Your task to perform on an android device: Open Yahoo.com Image 0: 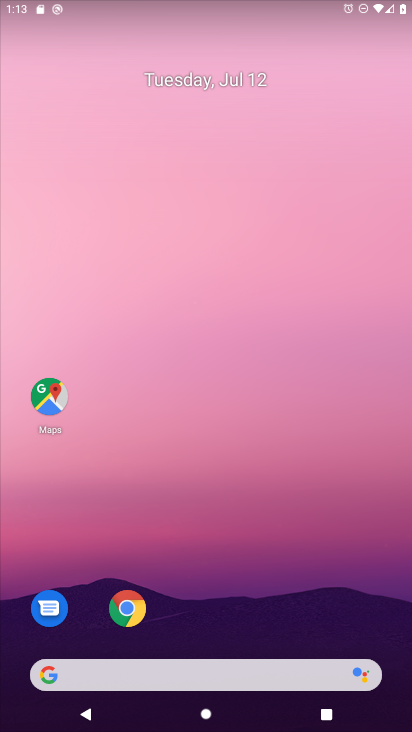
Step 0: click (125, 614)
Your task to perform on an android device: Open Yahoo.com Image 1: 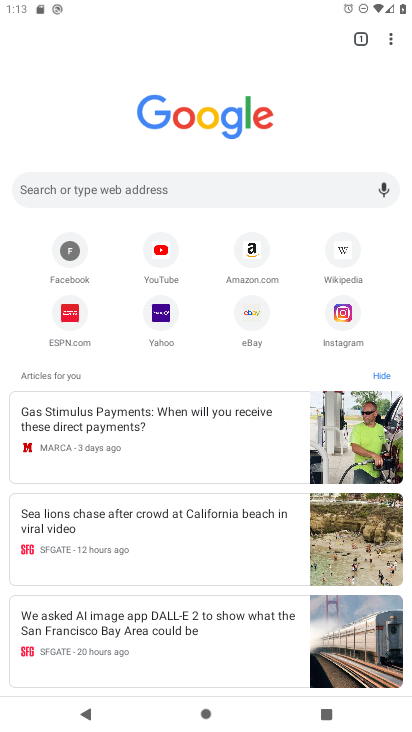
Step 1: click (166, 309)
Your task to perform on an android device: Open Yahoo.com Image 2: 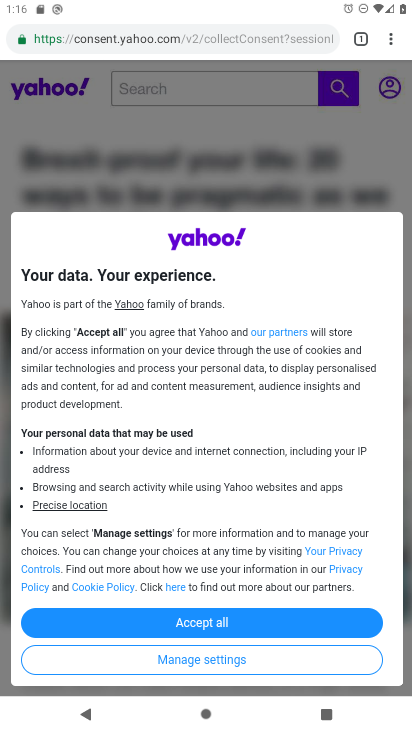
Step 2: task complete